Your task to perform on an android device: clear history in the chrome app Image 0: 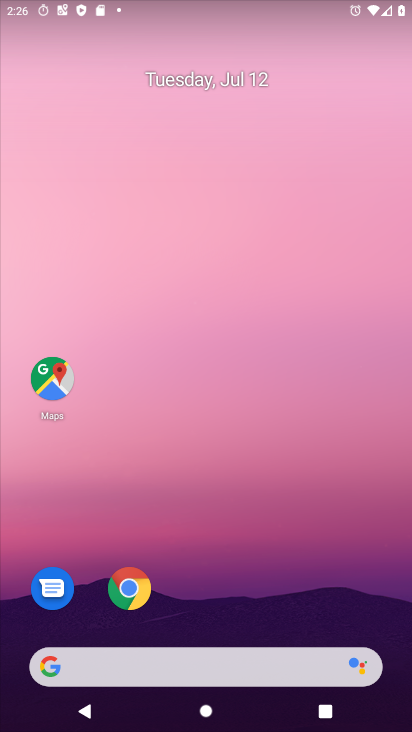
Step 0: click (285, 245)
Your task to perform on an android device: clear history in the chrome app Image 1: 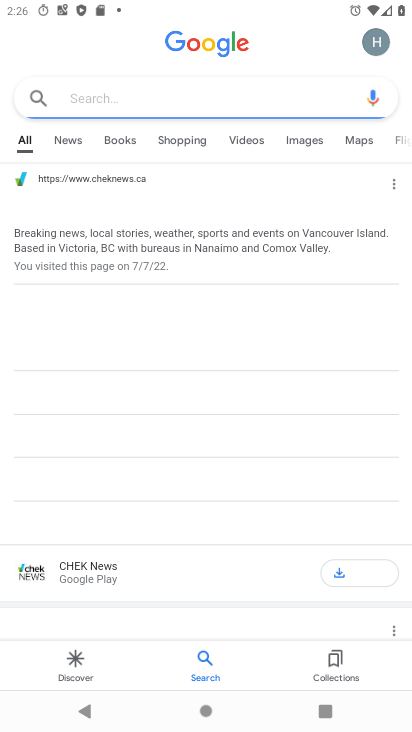
Step 1: press home button
Your task to perform on an android device: clear history in the chrome app Image 2: 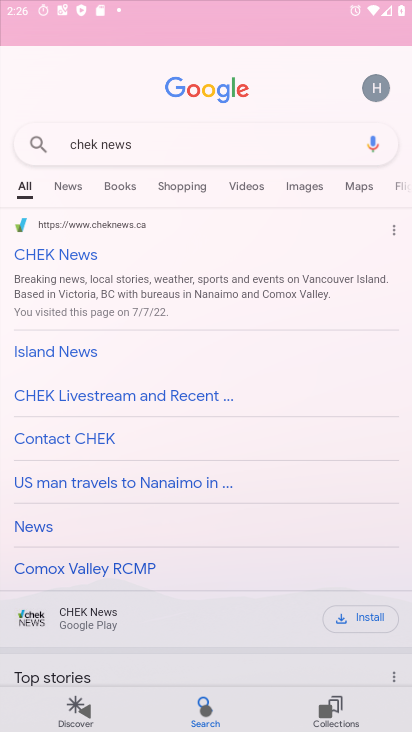
Step 2: drag from (221, 624) to (345, 190)
Your task to perform on an android device: clear history in the chrome app Image 3: 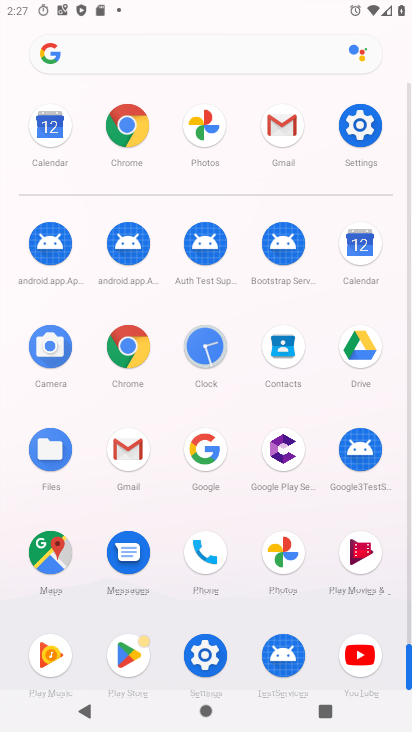
Step 3: click (123, 351)
Your task to perform on an android device: clear history in the chrome app Image 4: 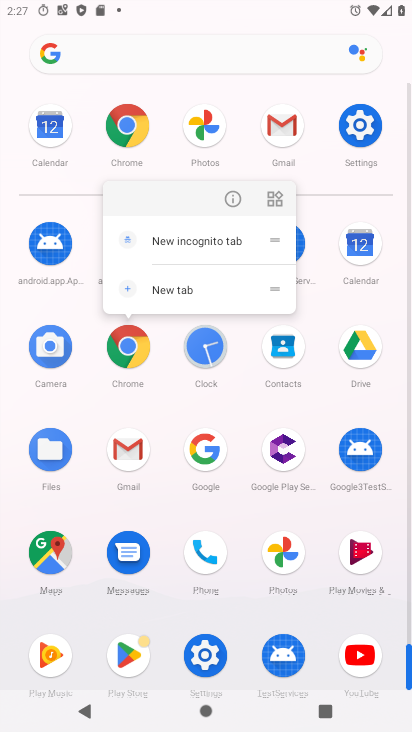
Step 4: click (228, 200)
Your task to perform on an android device: clear history in the chrome app Image 5: 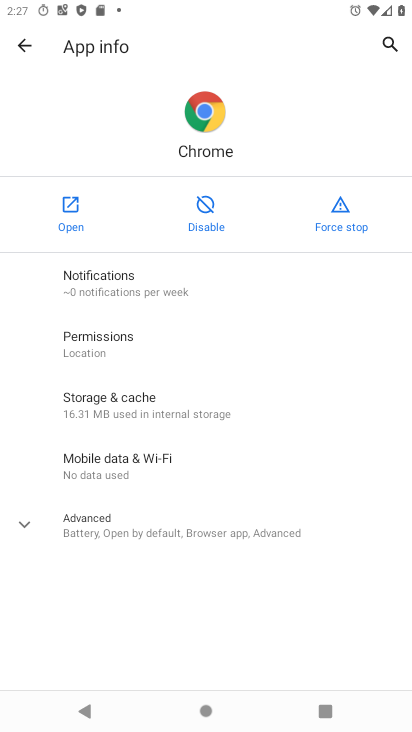
Step 5: click (66, 216)
Your task to perform on an android device: clear history in the chrome app Image 6: 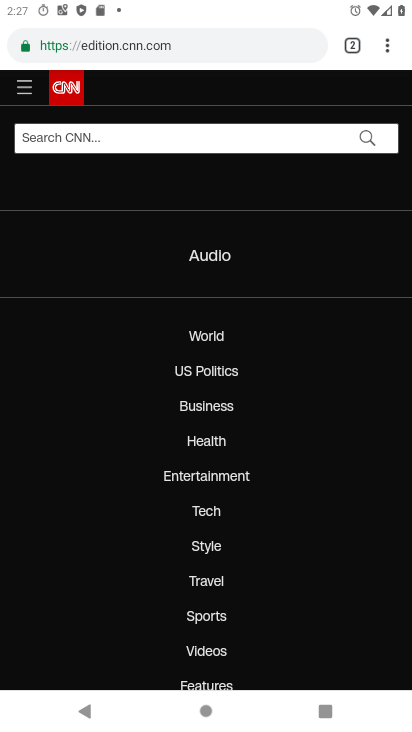
Step 6: click (387, 44)
Your task to perform on an android device: clear history in the chrome app Image 7: 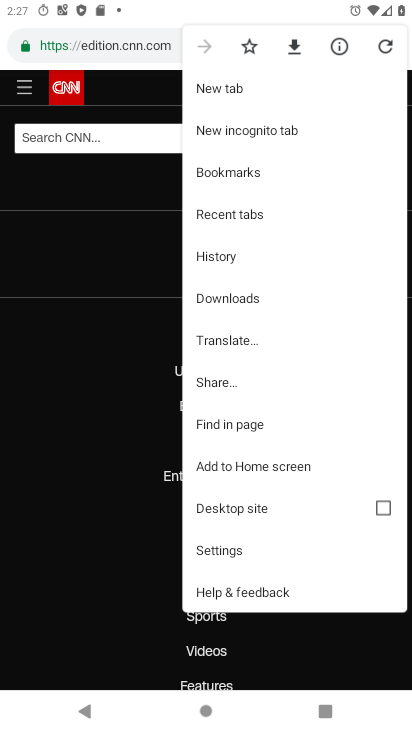
Step 7: click (254, 256)
Your task to perform on an android device: clear history in the chrome app Image 8: 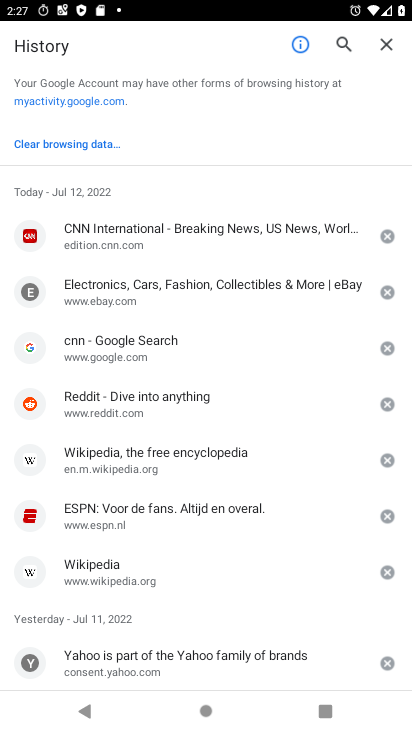
Step 8: drag from (233, 527) to (263, 227)
Your task to perform on an android device: clear history in the chrome app Image 9: 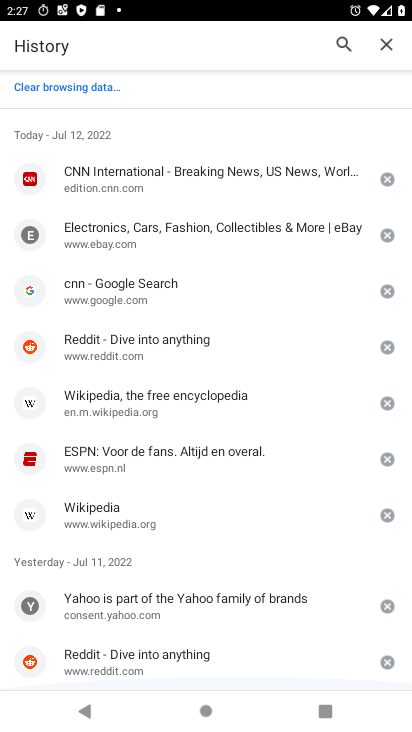
Step 9: drag from (259, 186) to (242, 727)
Your task to perform on an android device: clear history in the chrome app Image 10: 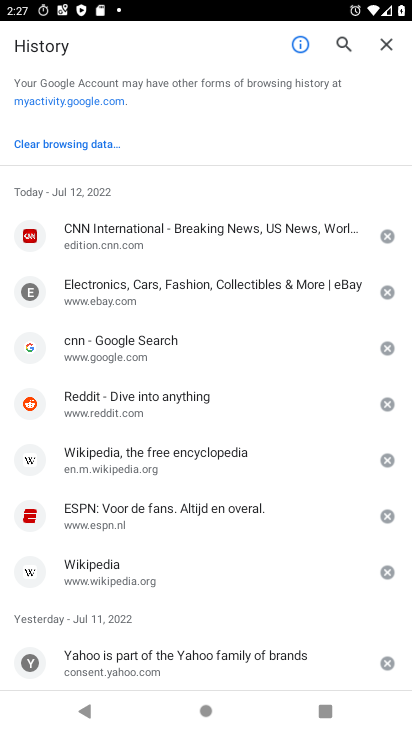
Step 10: click (63, 140)
Your task to perform on an android device: clear history in the chrome app Image 11: 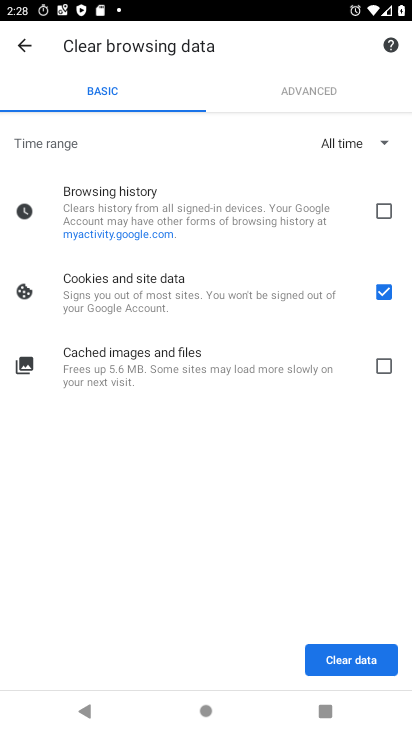
Step 11: click (386, 214)
Your task to perform on an android device: clear history in the chrome app Image 12: 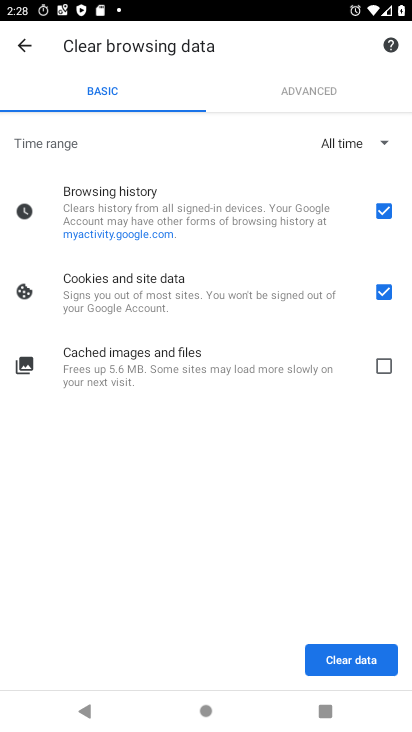
Step 12: click (350, 664)
Your task to perform on an android device: clear history in the chrome app Image 13: 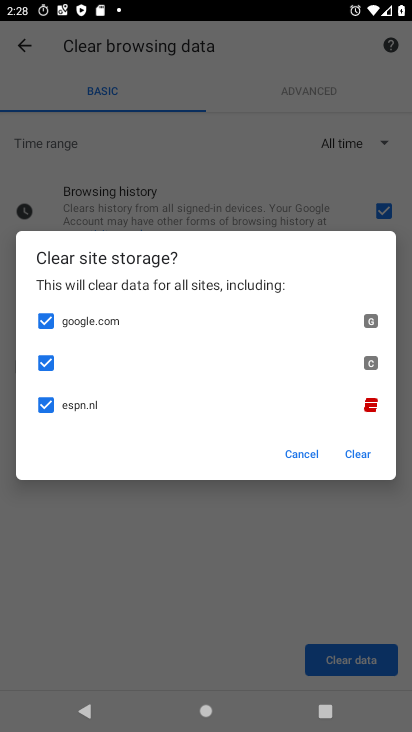
Step 13: click (348, 447)
Your task to perform on an android device: clear history in the chrome app Image 14: 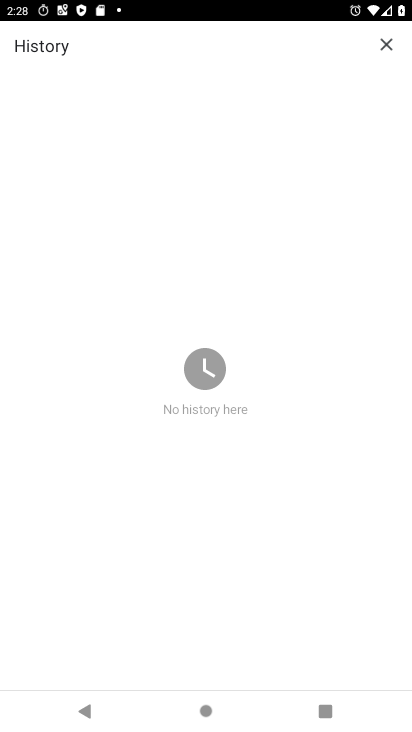
Step 14: task complete